Your task to perform on an android device: turn on notifications settings in the gmail app Image 0: 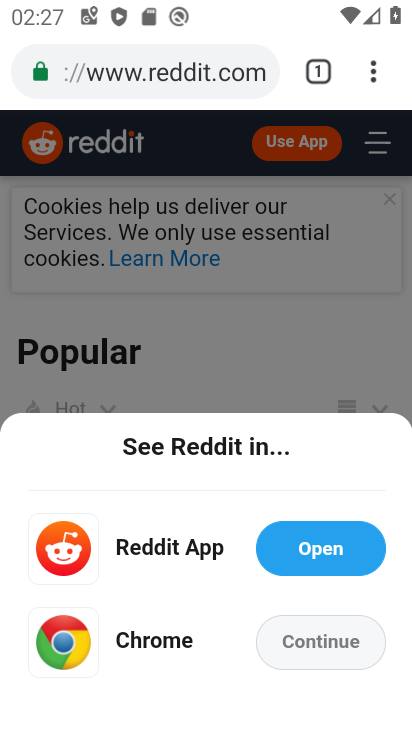
Step 0: press home button
Your task to perform on an android device: turn on notifications settings in the gmail app Image 1: 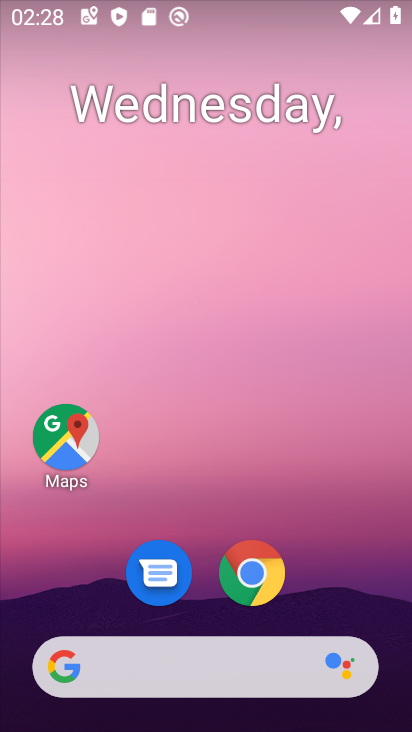
Step 1: drag from (337, 532) to (260, 9)
Your task to perform on an android device: turn on notifications settings in the gmail app Image 2: 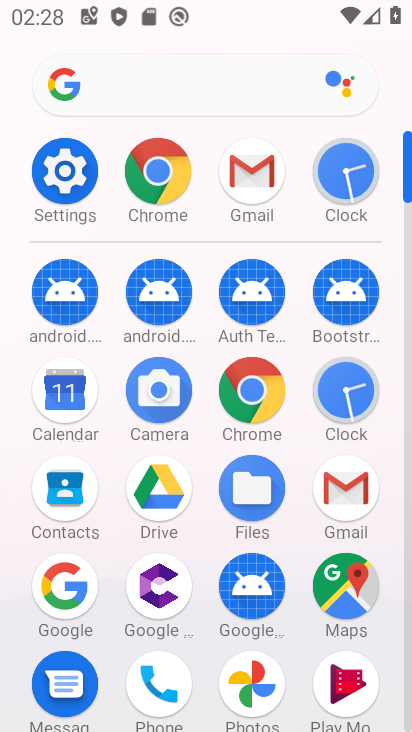
Step 2: click (250, 175)
Your task to perform on an android device: turn on notifications settings in the gmail app Image 3: 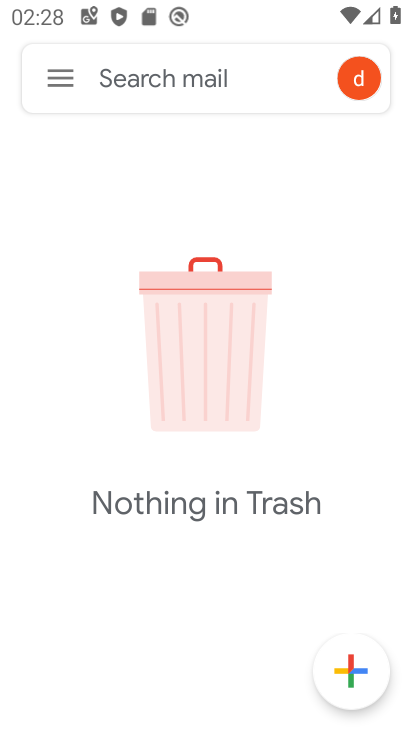
Step 3: click (61, 78)
Your task to perform on an android device: turn on notifications settings in the gmail app Image 4: 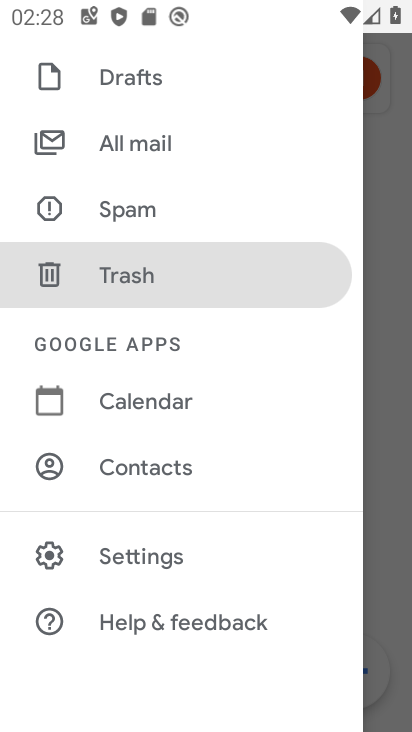
Step 4: click (136, 559)
Your task to perform on an android device: turn on notifications settings in the gmail app Image 5: 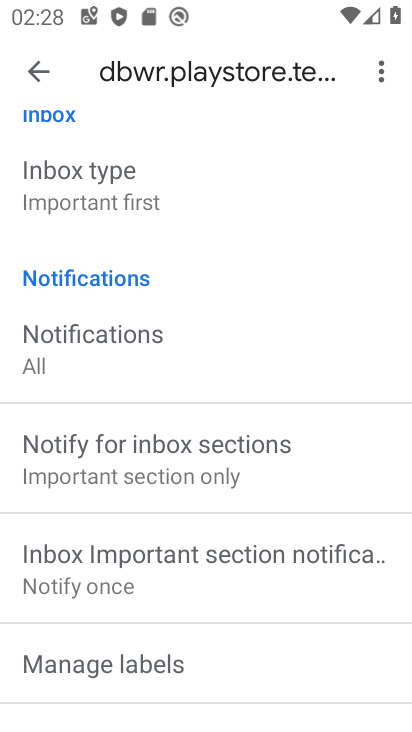
Step 5: drag from (134, 426) to (159, 294)
Your task to perform on an android device: turn on notifications settings in the gmail app Image 6: 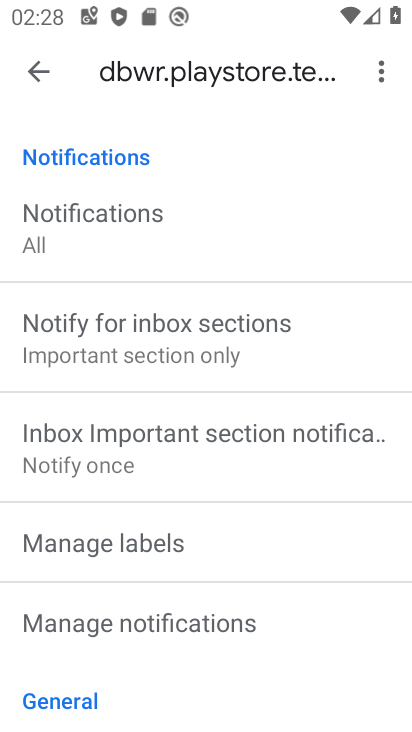
Step 6: click (141, 618)
Your task to perform on an android device: turn on notifications settings in the gmail app Image 7: 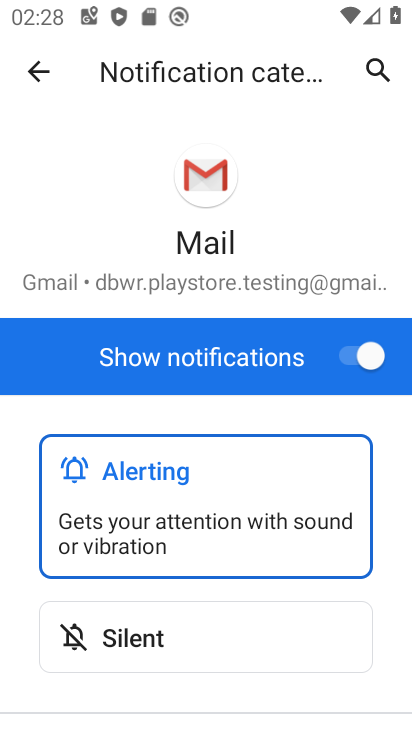
Step 7: task complete